Your task to perform on an android device: Open battery settings Image 0: 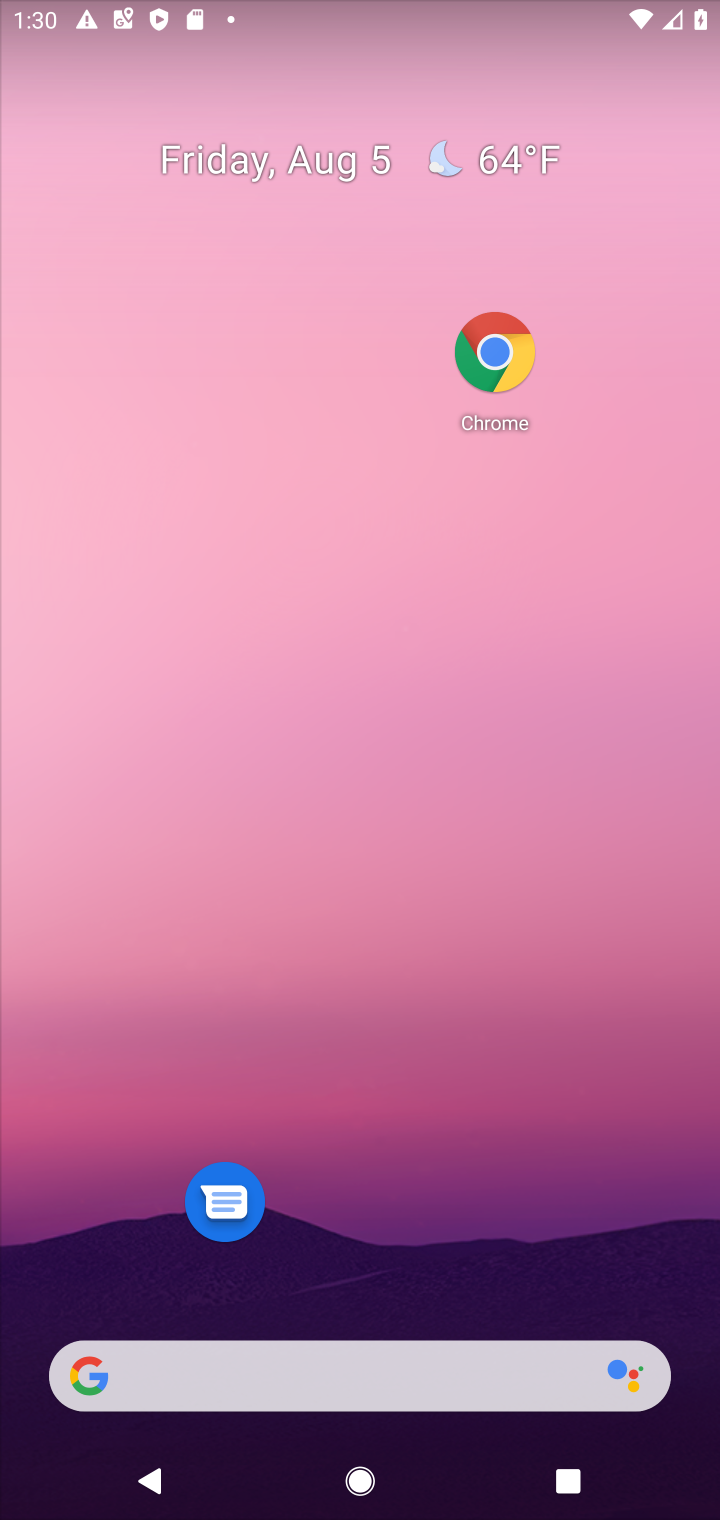
Step 0: drag from (517, 1131) to (400, 206)
Your task to perform on an android device: Open battery settings Image 1: 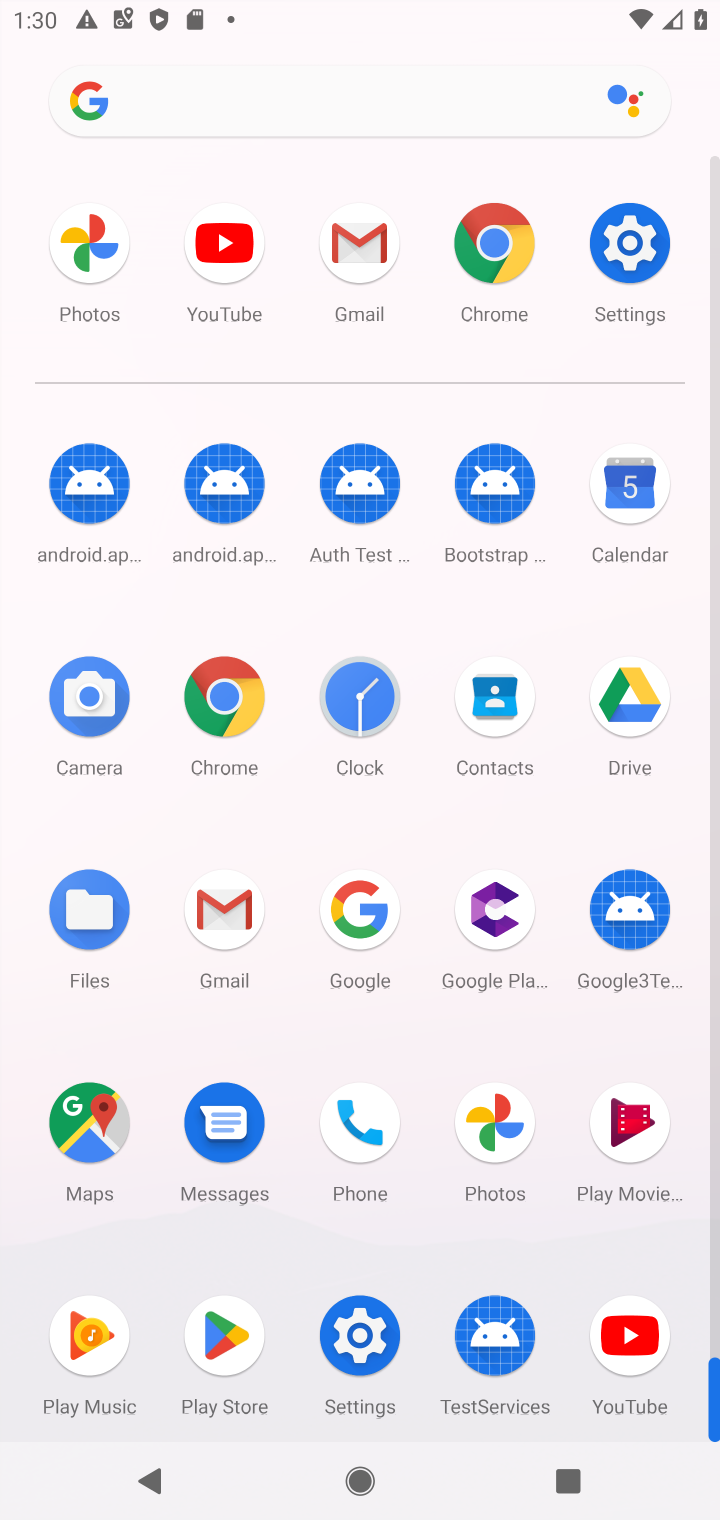
Step 1: click (345, 1330)
Your task to perform on an android device: Open battery settings Image 2: 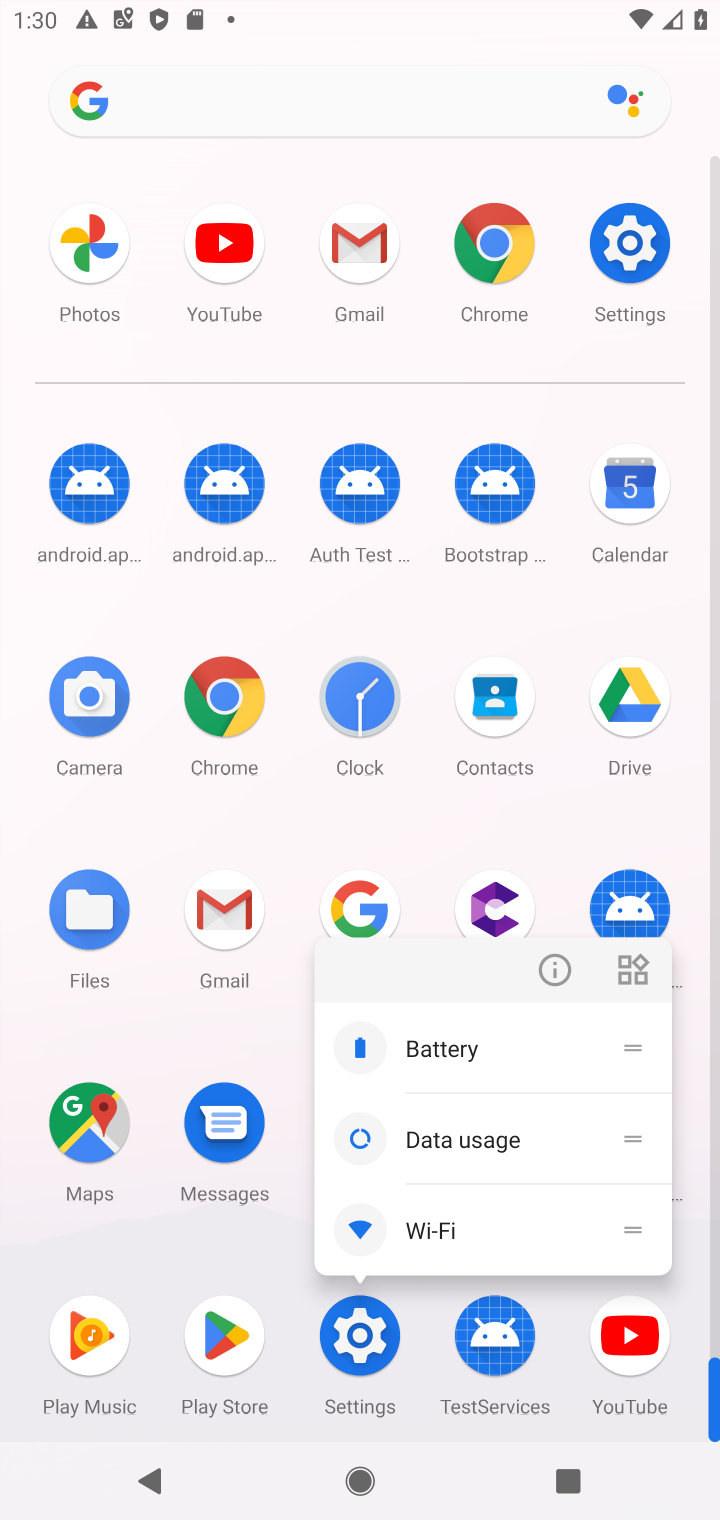
Step 2: click (358, 1335)
Your task to perform on an android device: Open battery settings Image 3: 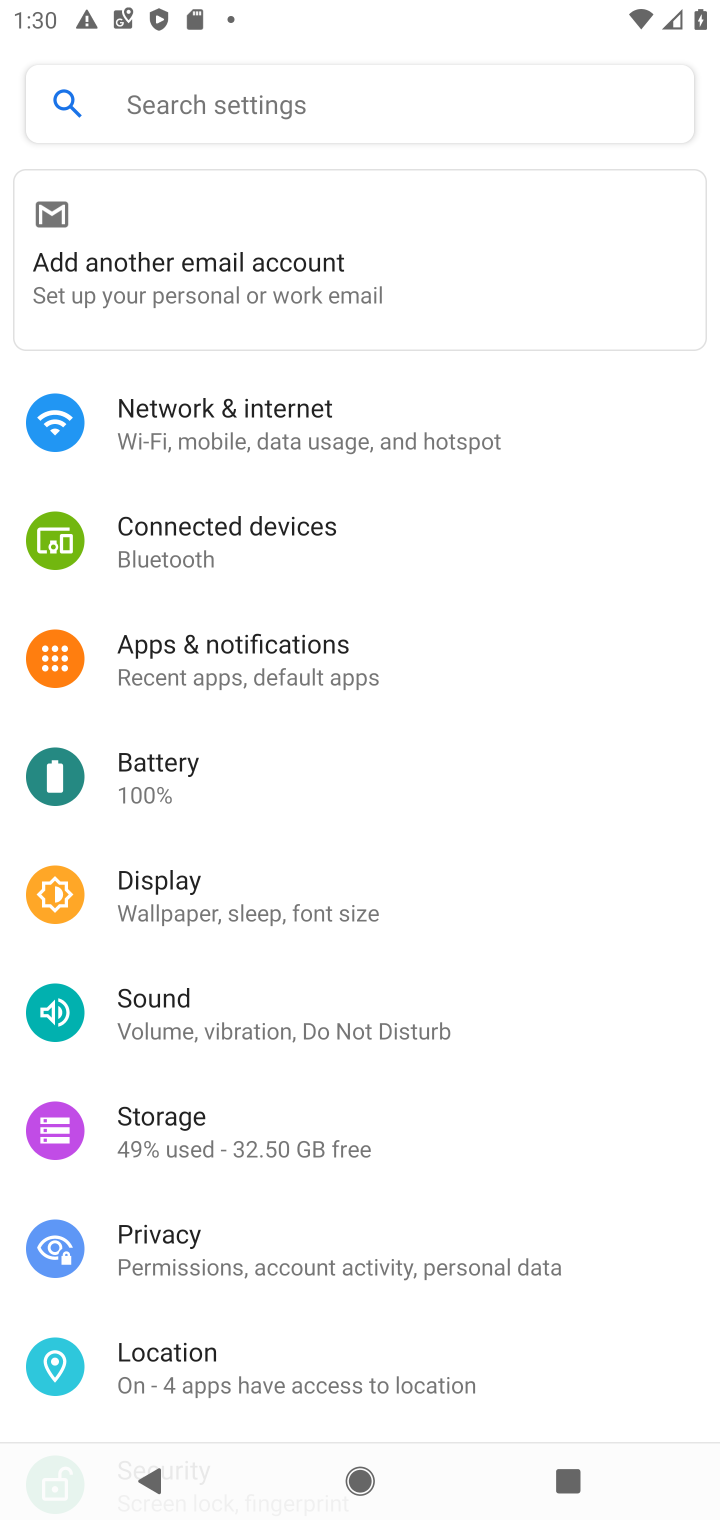
Step 3: click (144, 780)
Your task to perform on an android device: Open battery settings Image 4: 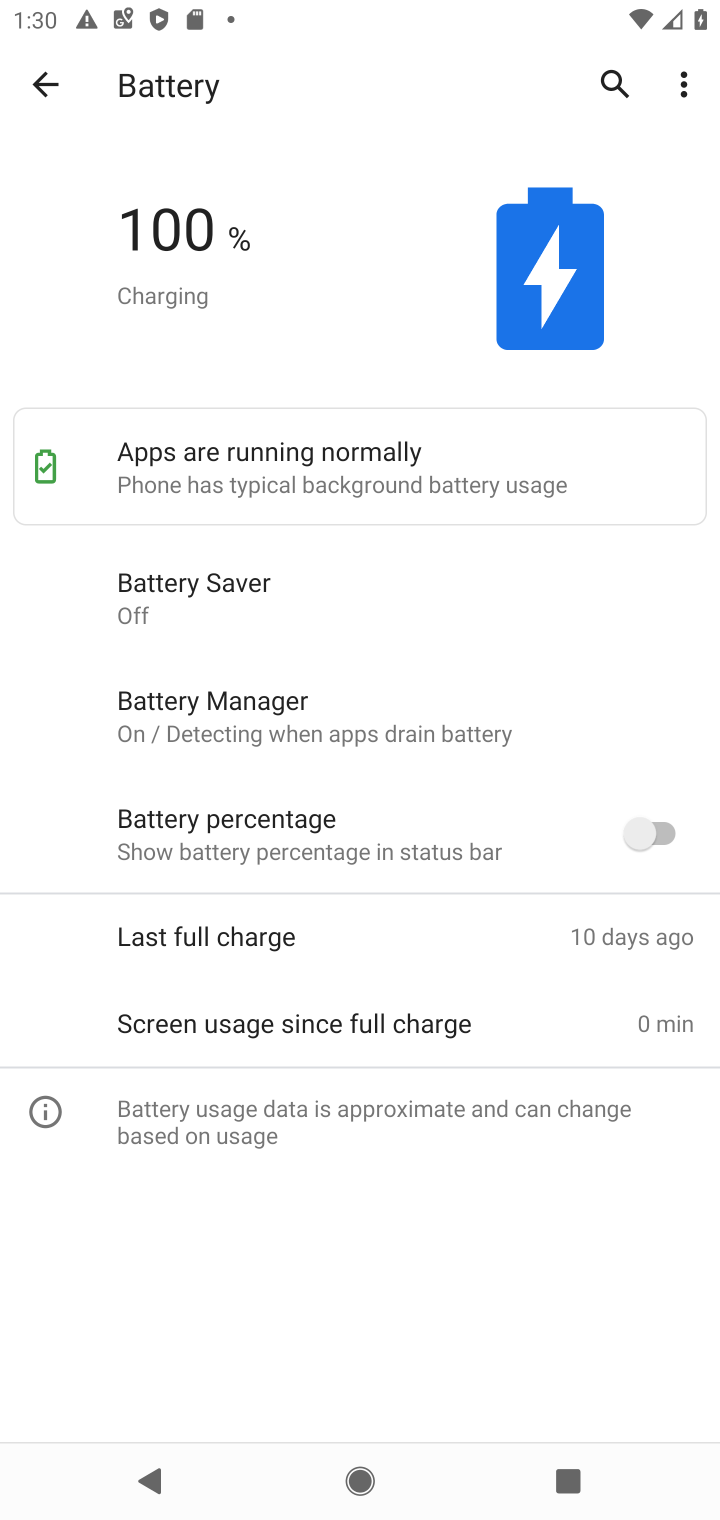
Step 4: task complete